Your task to perform on an android device: Open wifi settings Image 0: 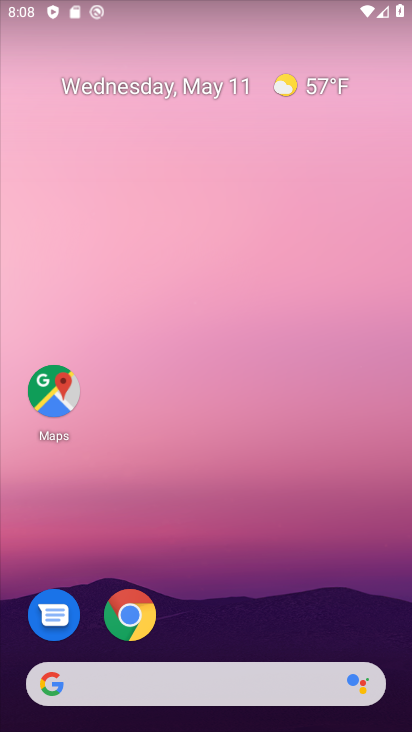
Step 0: drag from (244, 519) to (230, 254)
Your task to perform on an android device: Open wifi settings Image 1: 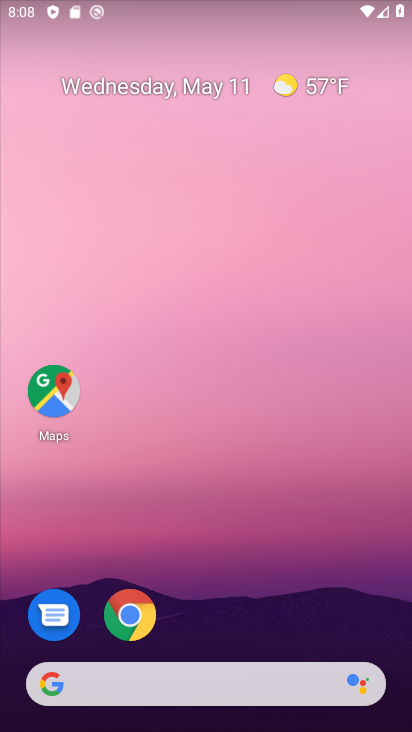
Step 1: drag from (226, 456) to (225, 326)
Your task to perform on an android device: Open wifi settings Image 2: 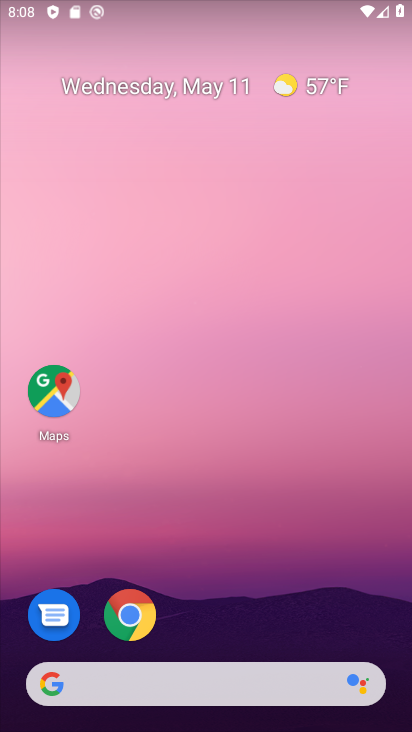
Step 2: drag from (219, 601) to (218, 202)
Your task to perform on an android device: Open wifi settings Image 3: 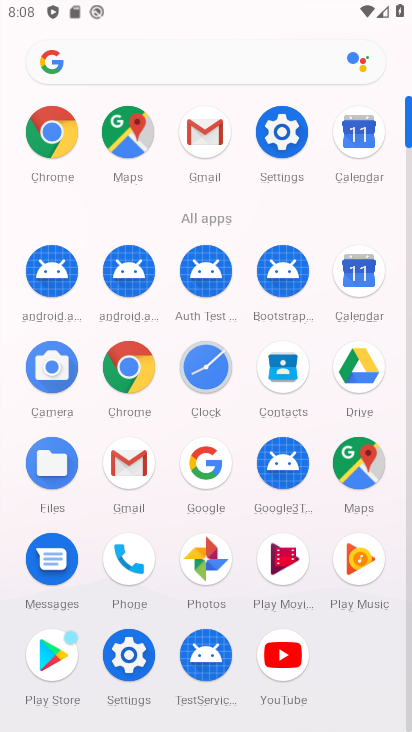
Step 3: click (287, 146)
Your task to perform on an android device: Open wifi settings Image 4: 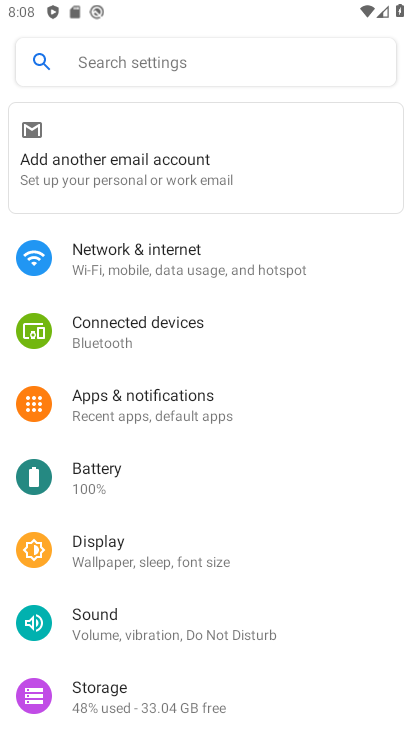
Step 4: click (164, 259)
Your task to perform on an android device: Open wifi settings Image 5: 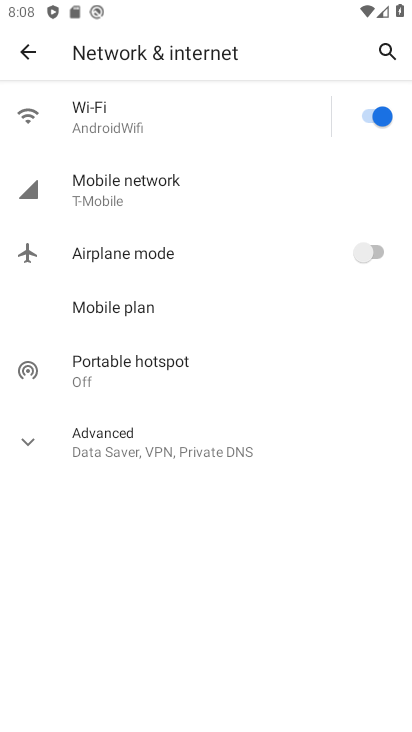
Step 5: click (136, 114)
Your task to perform on an android device: Open wifi settings Image 6: 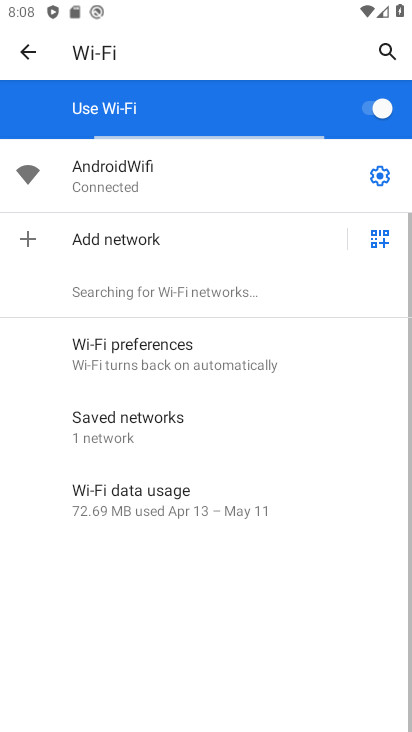
Step 6: task complete